Your task to perform on an android device: Clear the cart on ebay.com. Search for macbook air on ebay.com, select the first entry, add it to the cart, then select checkout. Image 0: 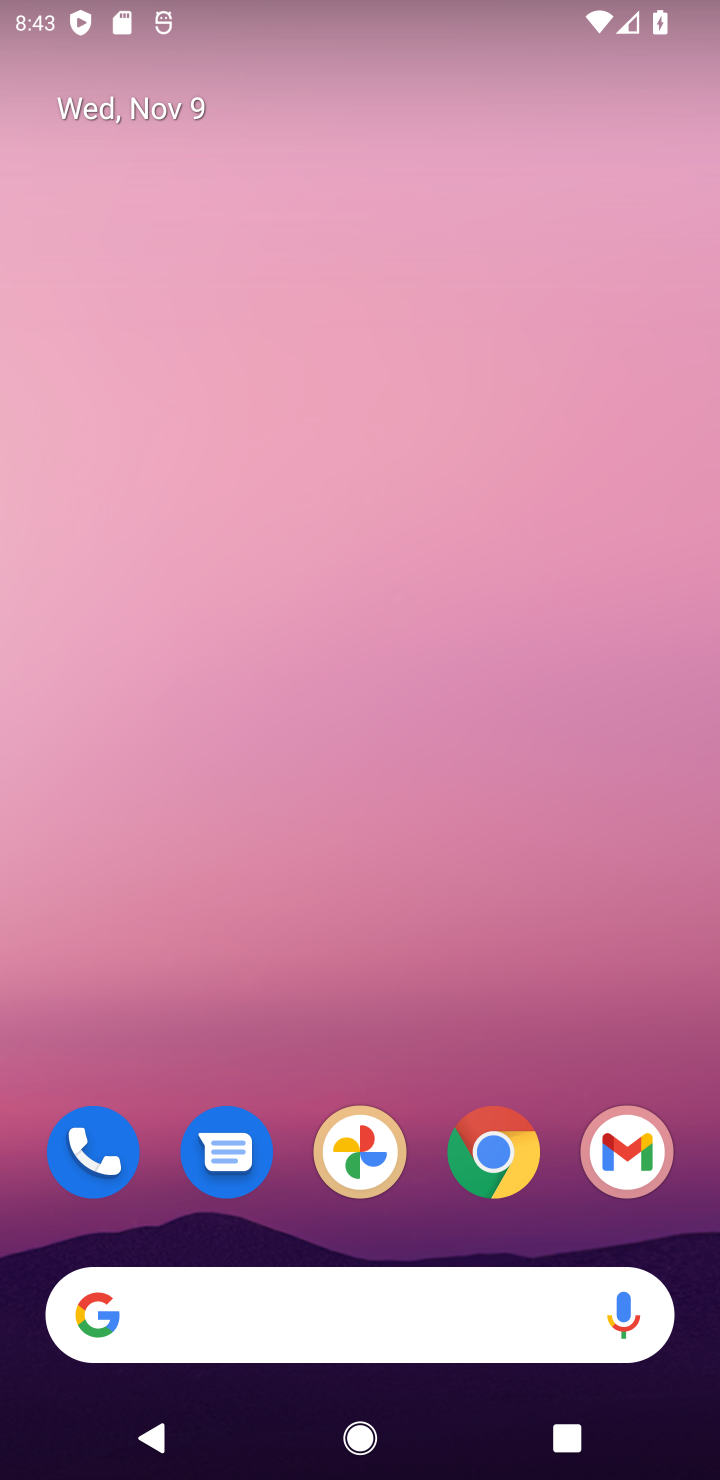
Step 0: press home button
Your task to perform on an android device: Clear the cart on ebay.com. Search for macbook air on ebay.com, select the first entry, add it to the cart, then select checkout. Image 1: 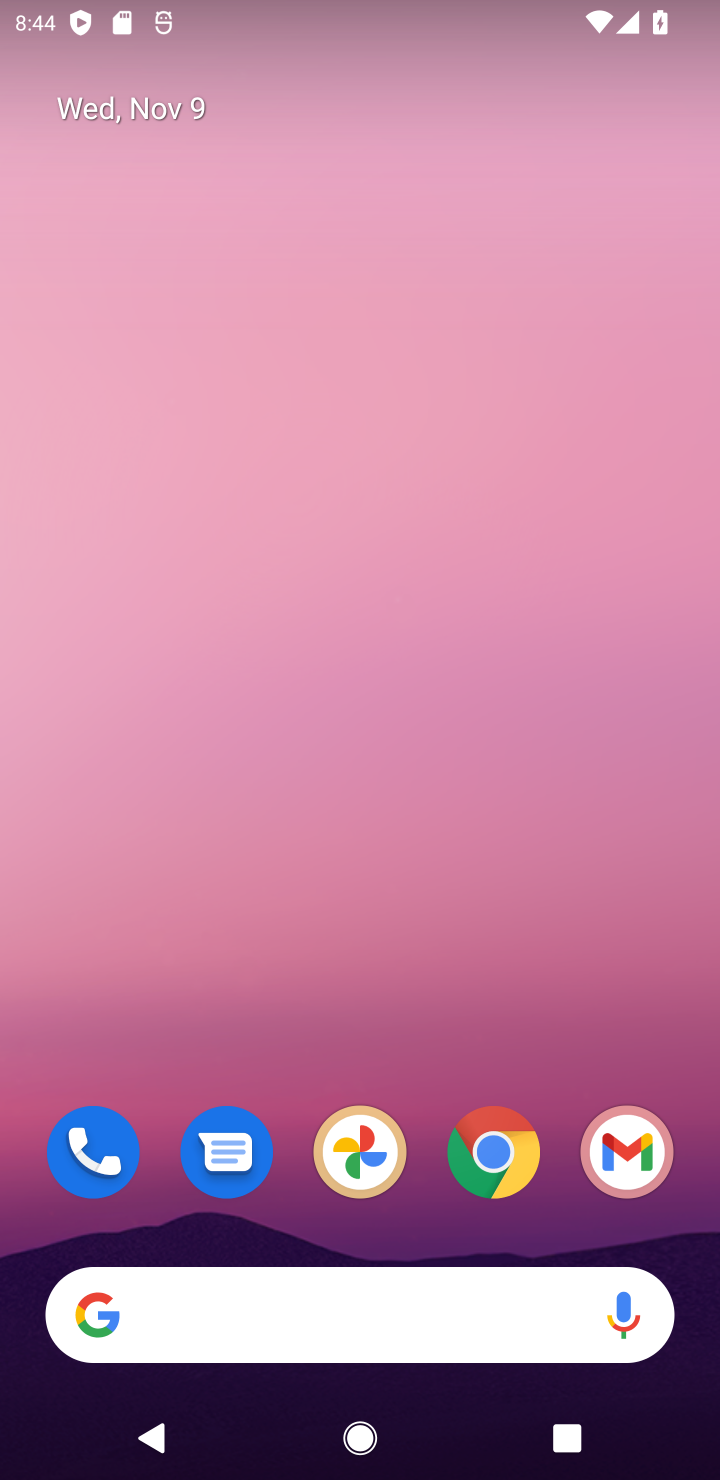
Step 1: click (485, 1157)
Your task to perform on an android device: Clear the cart on ebay.com. Search for macbook air on ebay.com, select the first entry, add it to the cart, then select checkout. Image 2: 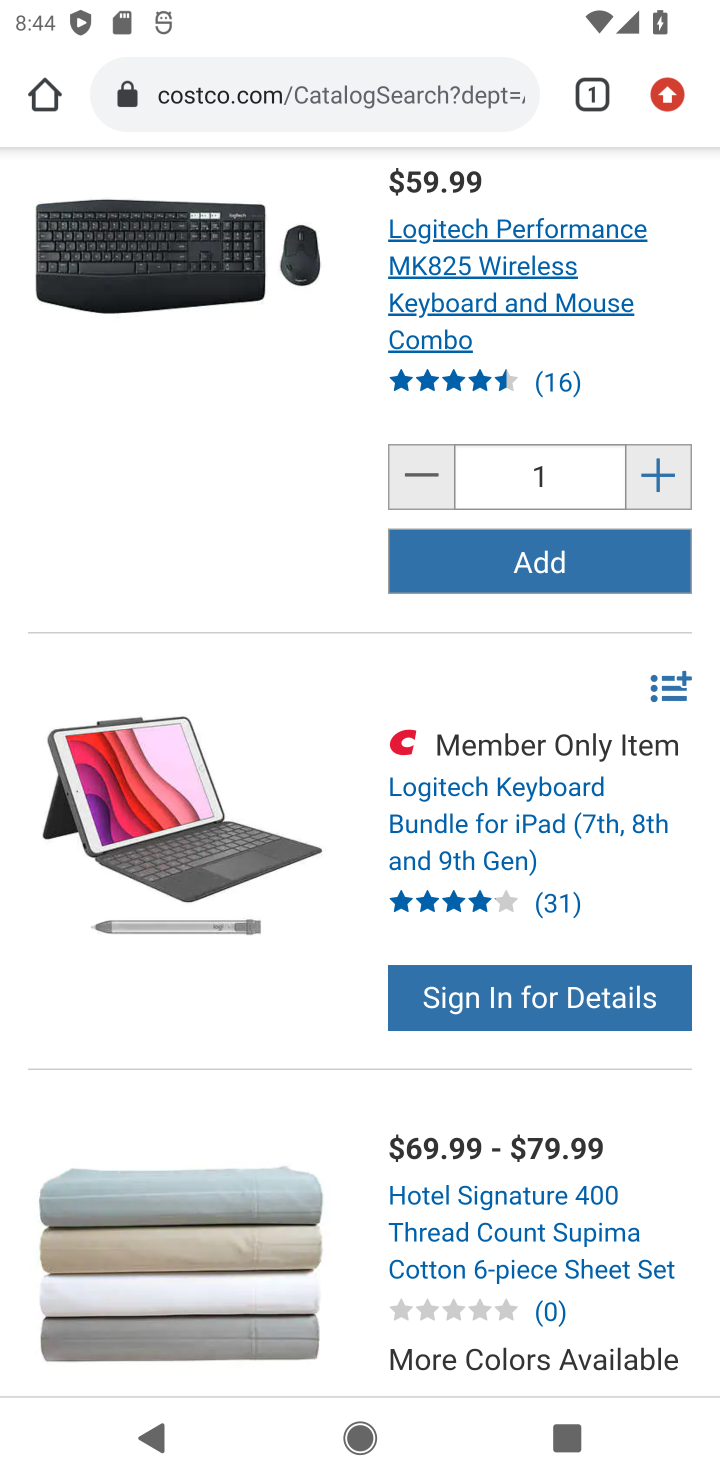
Step 2: click (428, 80)
Your task to perform on an android device: Clear the cart on ebay.com. Search for macbook air on ebay.com, select the first entry, add it to the cart, then select checkout. Image 3: 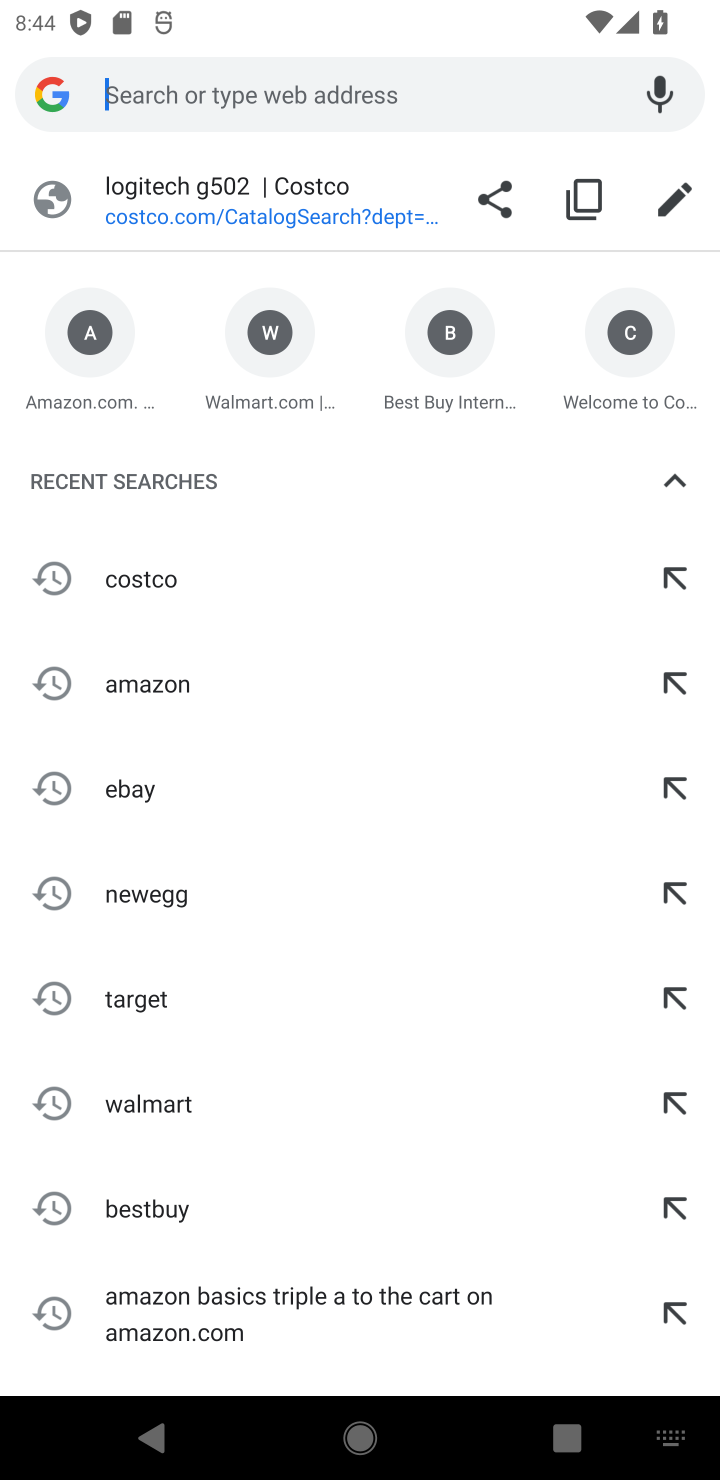
Step 3: click (117, 783)
Your task to perform on an android device: Clear the cart on ebay.com. Search for macbook air on ebay.com, select the first entry, add it to the cart, then select checkout. Image 4: 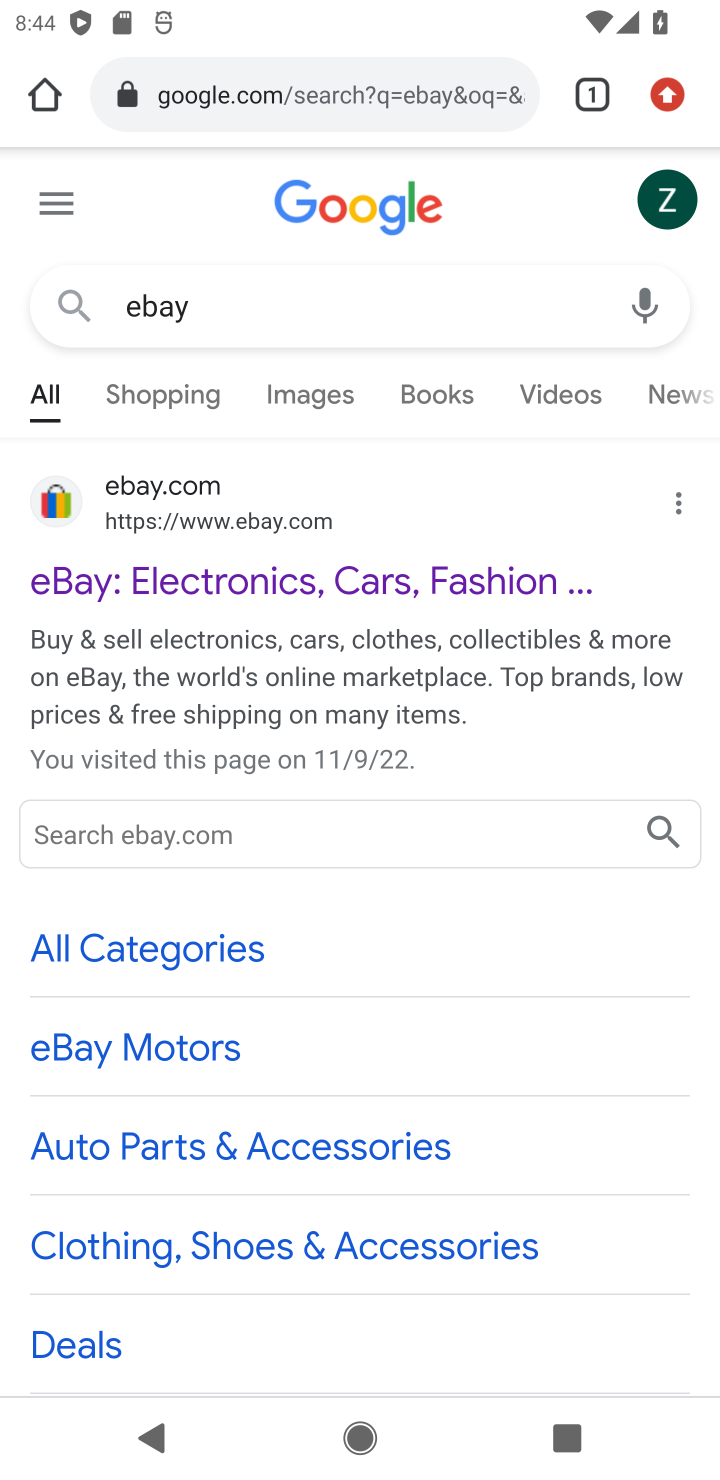
Step 4: click (330, 580)
Your task to perform on an android device: Clear the cart on ebay.com. Search for macbook air on ebay.com, select the first entry, add it to the cart, then select checkout. Image 5: 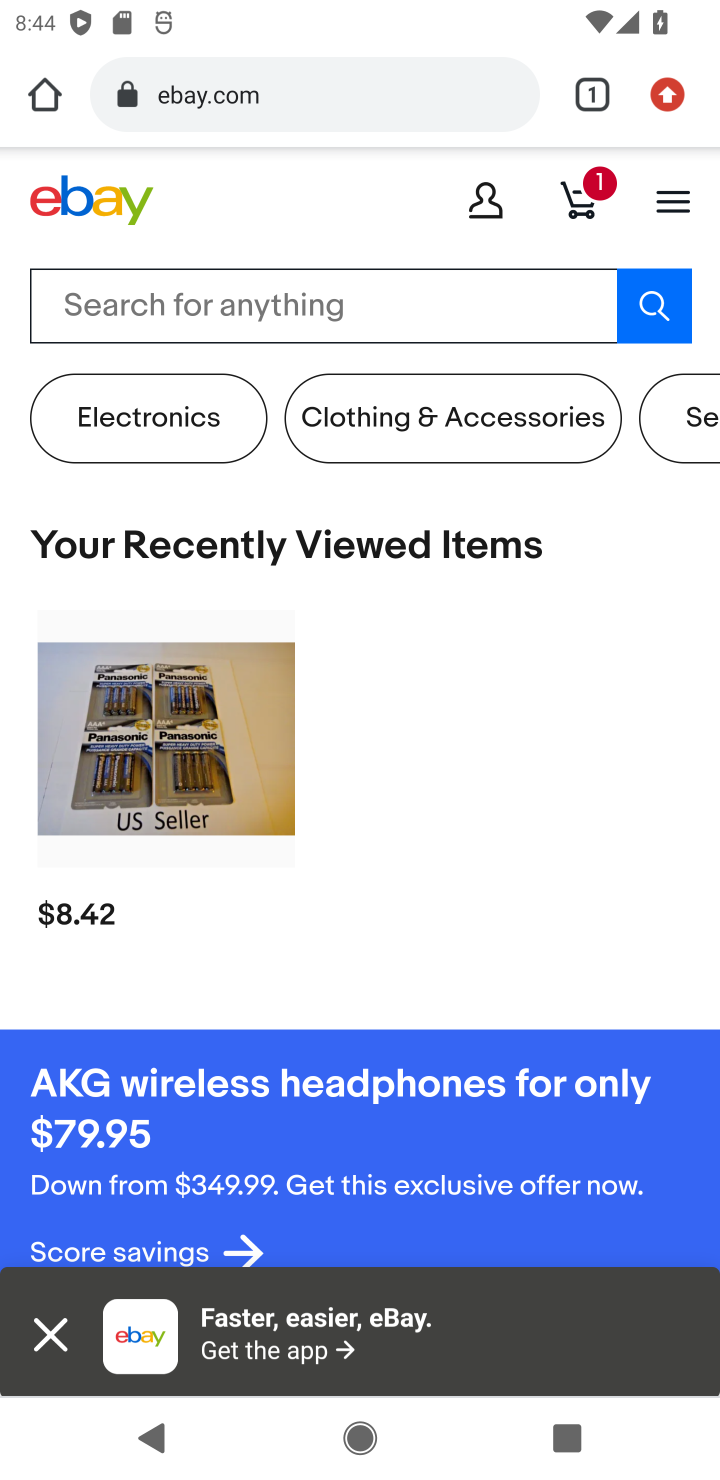
Step 5: click (272, 300)
Your task to perform on an android device: Clear the cart on ebay.com. Search for macbook air on ebay.com, select the first entry, add it to the cart, then select checkout. Image 6: 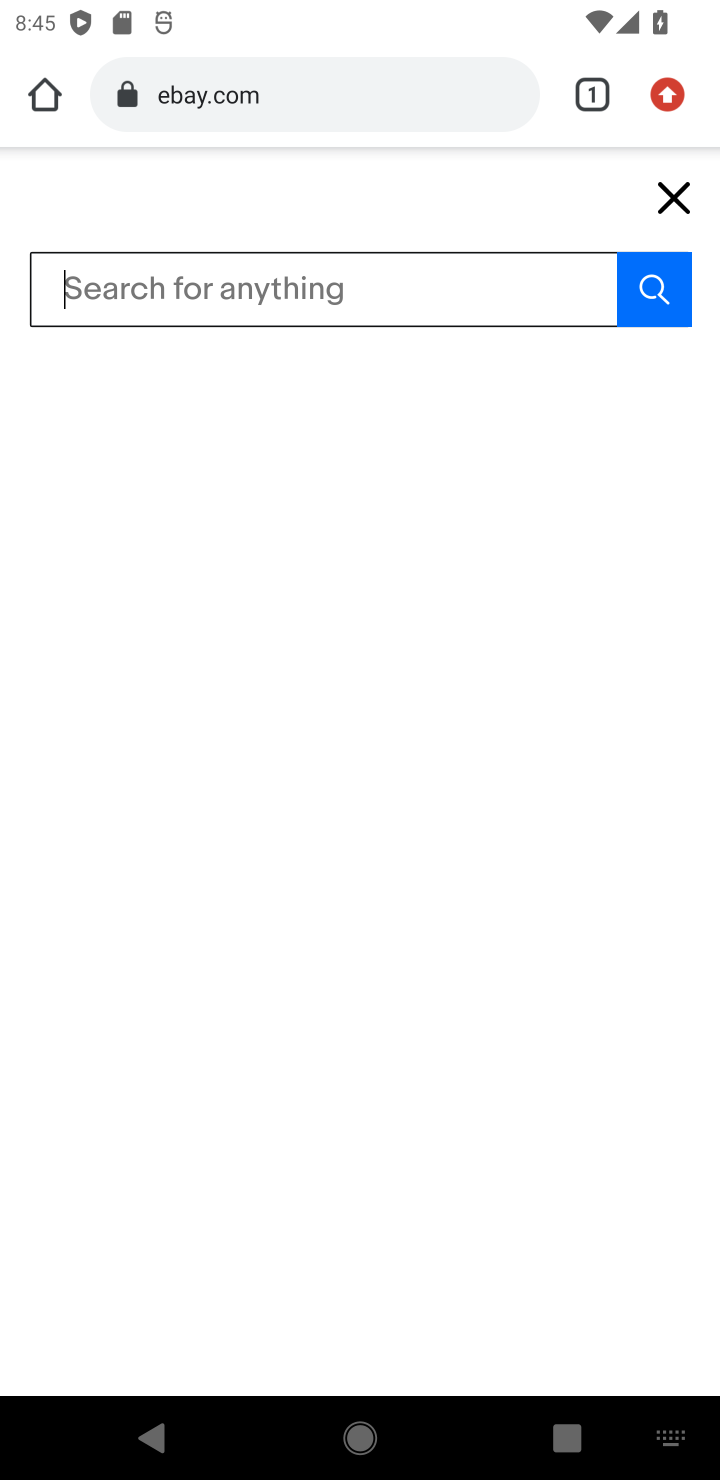
Step 6: type "macbook air"
Your task to perform on an android device: Clear the cart on ebay.com. Search for macbook air on ebay.com, select the first entry, add it to the cart, then select checkout. Image 7: 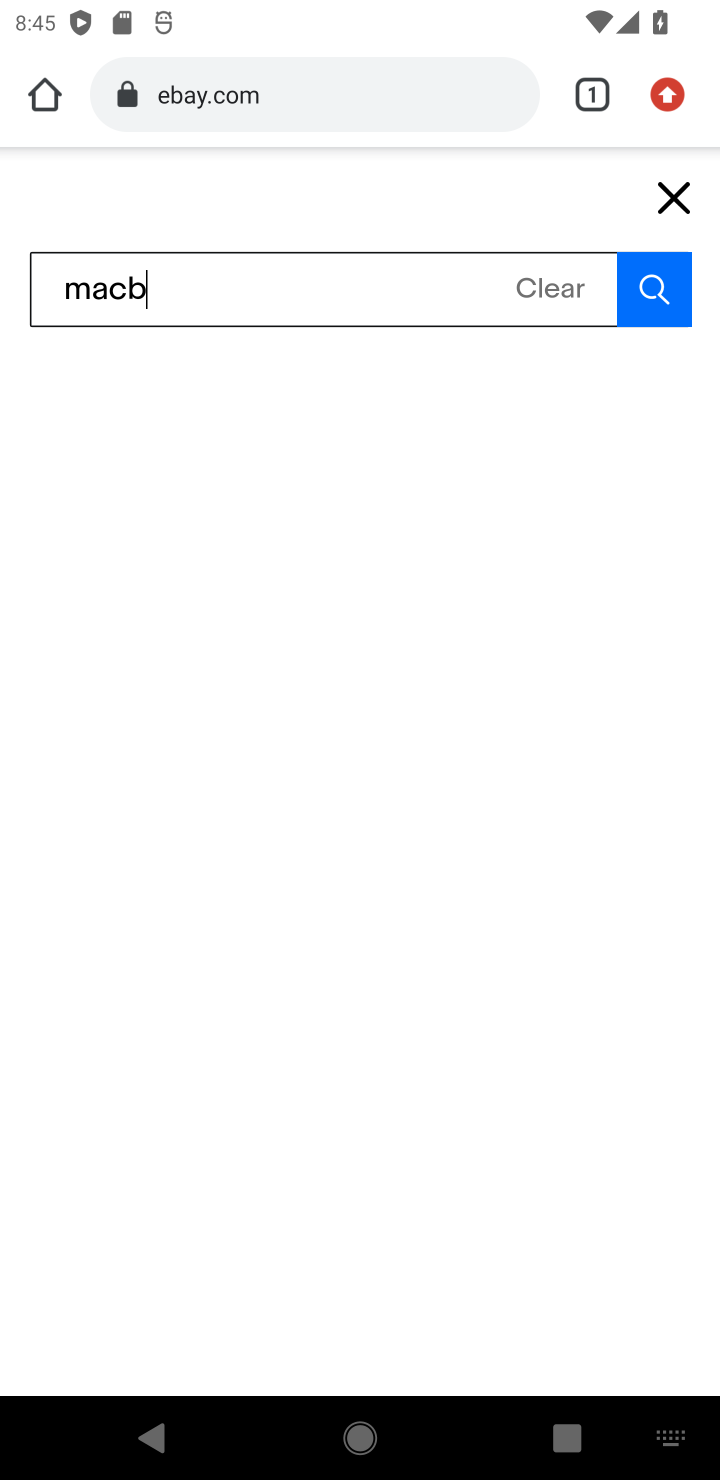
Step 7: press enter
Your task to perform on an android device: Clear the cart on ebay.com. Search for macbook air on ebay.com, select the first entry, add it to the cart, then select checkout. Image 8: 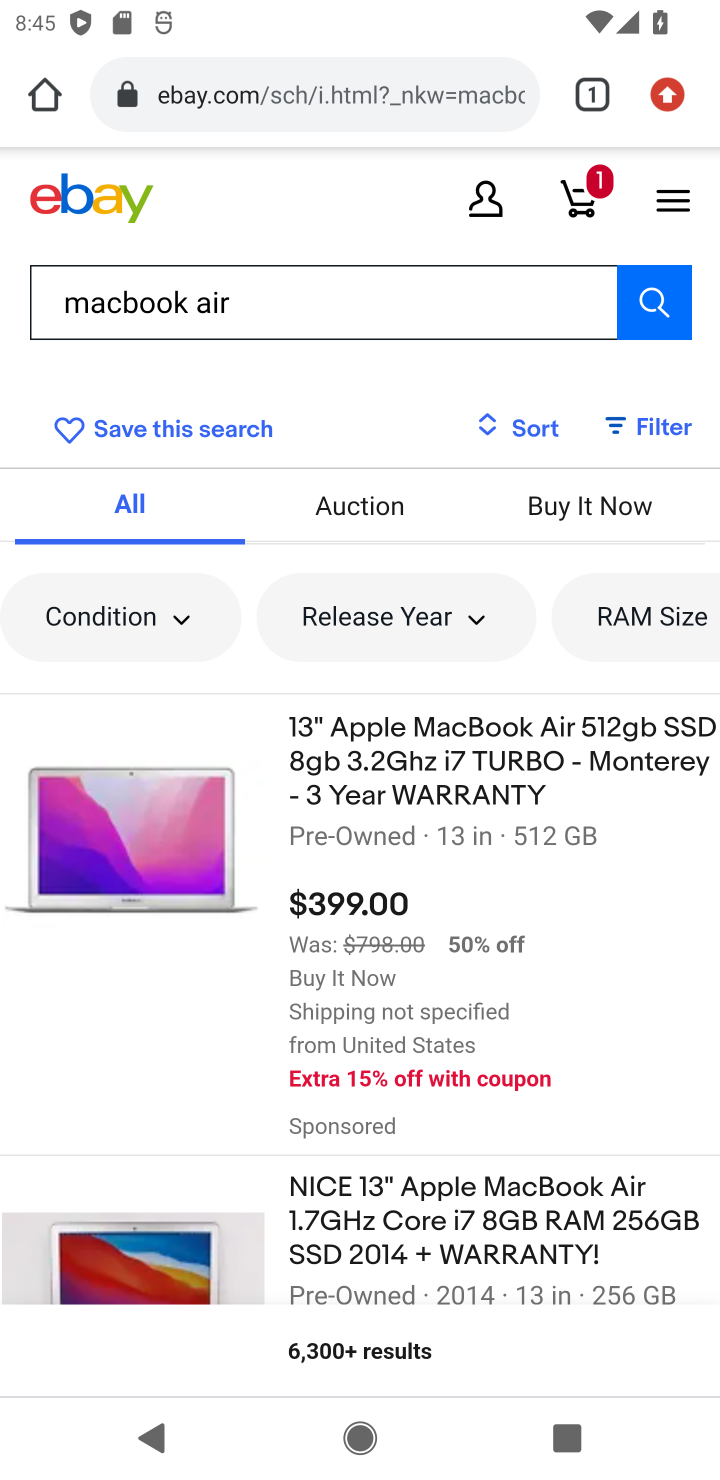
Step 8: click (466, 805)
Your task to perform on an android device: Clear the cart on ebay.com. Search for macbook air on ebay.com, select the first entry, add it to the cart, then select checkout. Image 9: 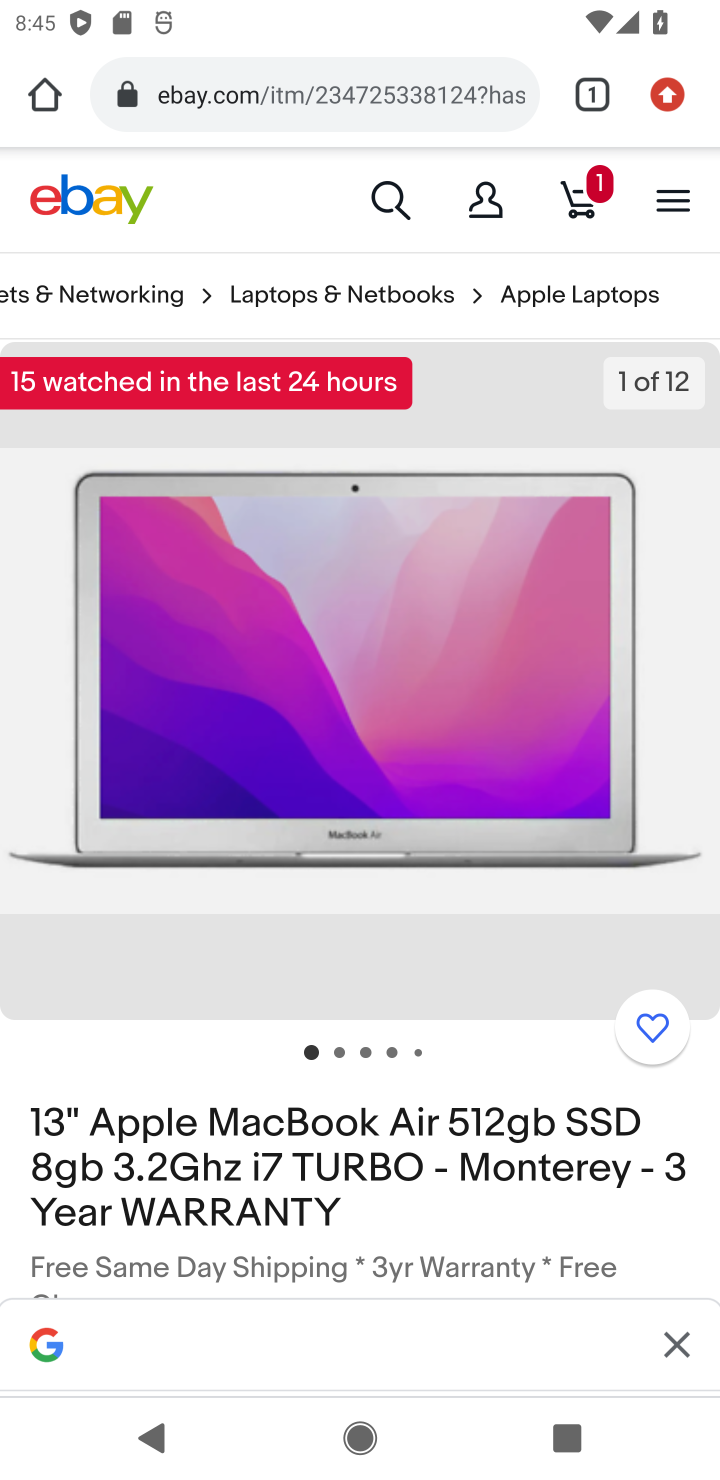
Step 9: drag from (306, 1305) to (651, 255)
Your task to perform on an android device: Clear the cart on ebay.com. Search for macbook air on ebay.com, select the first entry, add it to the cart, then select checkout. Image 10: 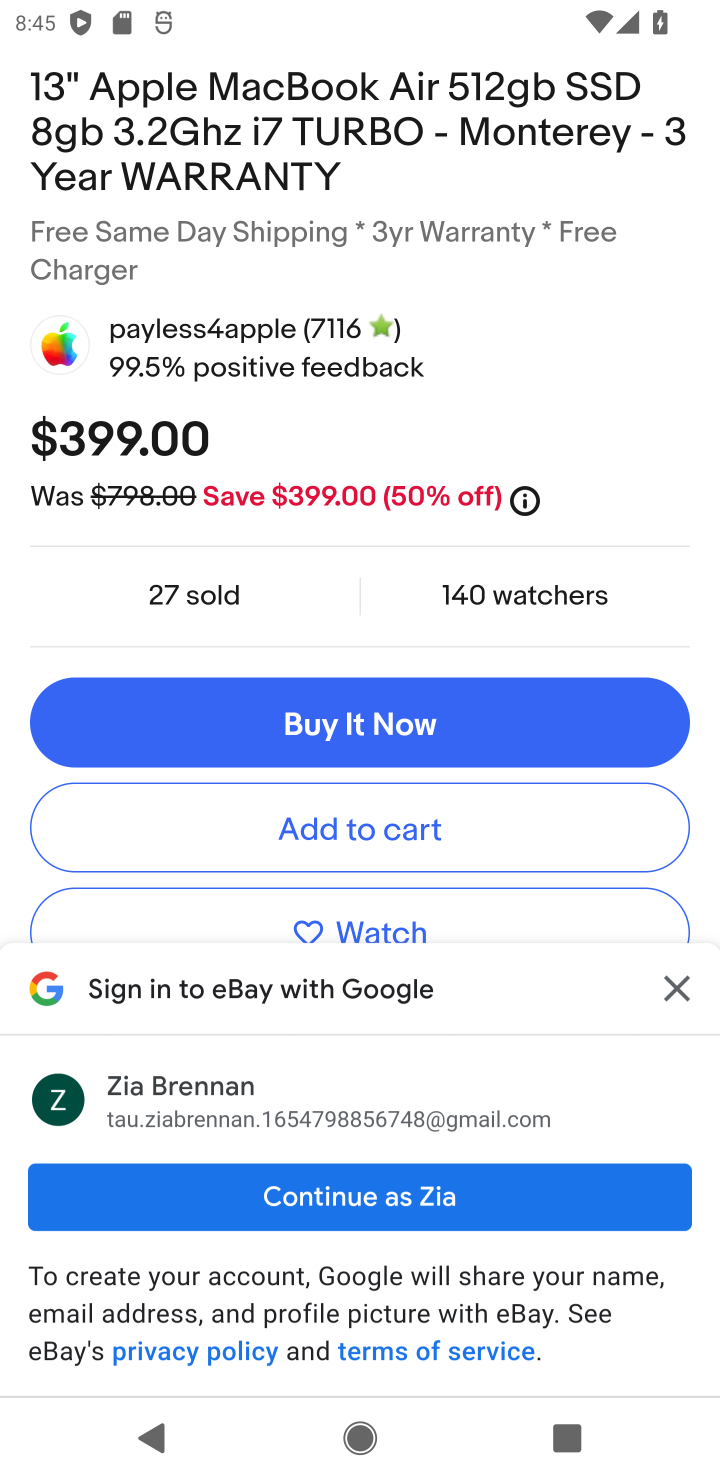
Step 10: click (400, 830)
Your task to perform on an android device: Clear the cart on ebay.com. Search for macbook air on ebay.com, select the first entry, add it to the cart, then select checkout. Image 11: 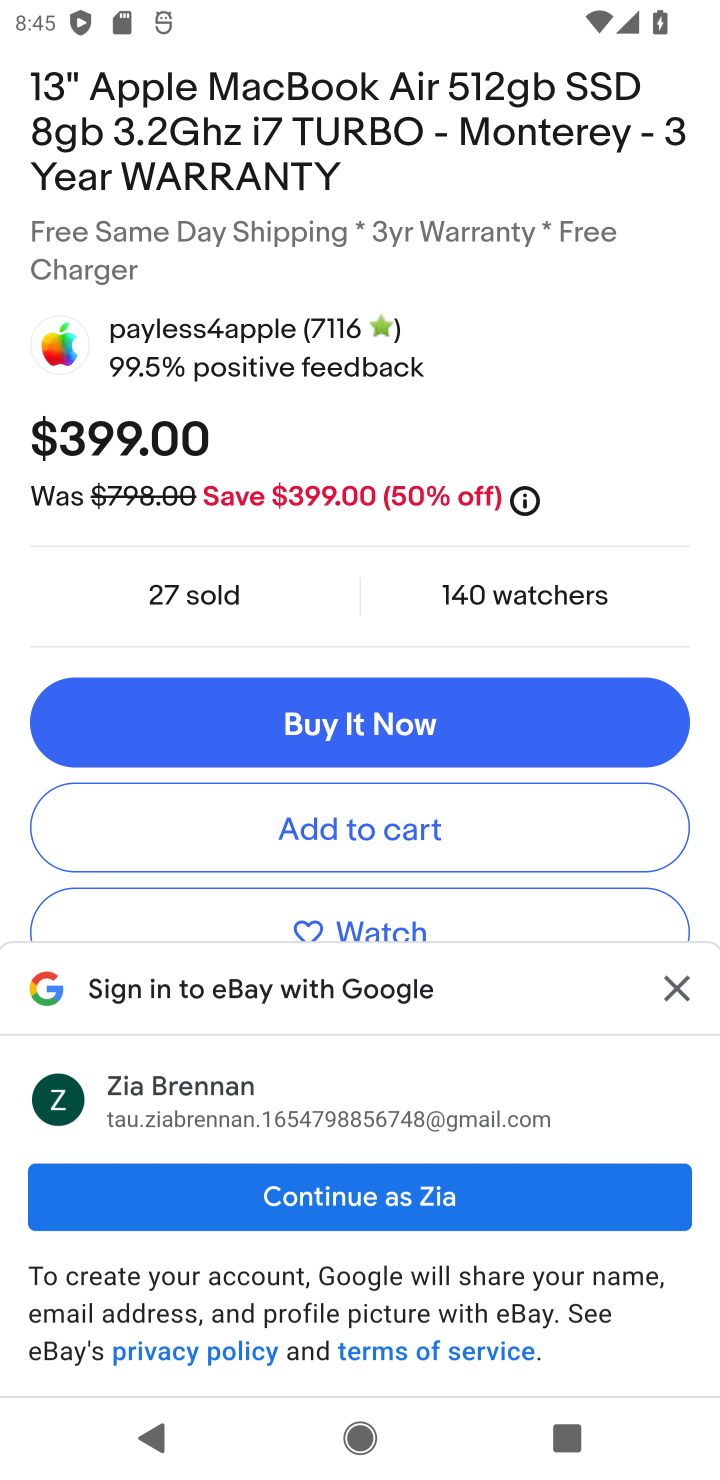
Step 11: click (337, 824)
Your task to perform on an android device: Clear the cart on ebay.com. Search for macbook air on ebay.com, select the first entry, add it to the cart, then select checkout. Image 12: 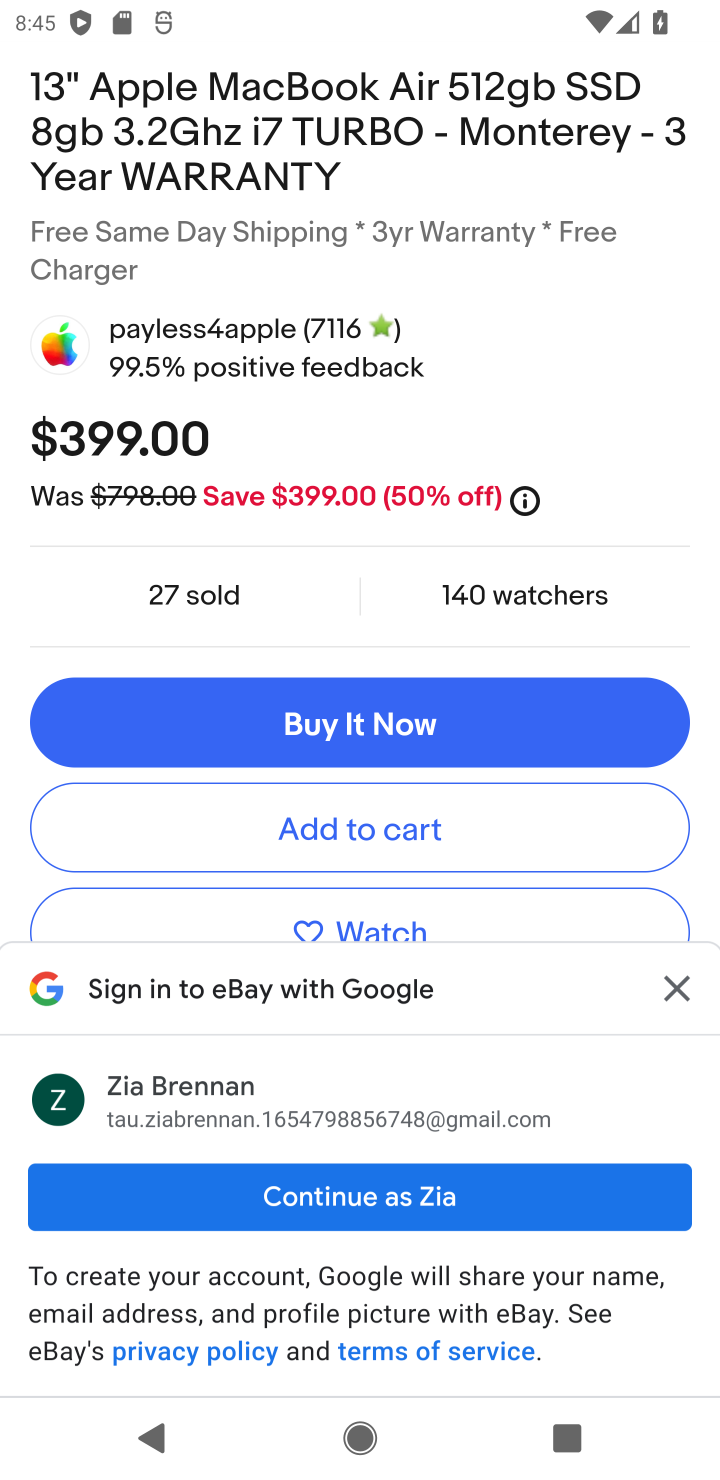
Step 12: click (311, 824)
Your task to perform on an android device: Clear the cart on ebay.com. Search for macbook air on ebay.com, select the first entry, add it to the cart, then select checkout. Image 13: 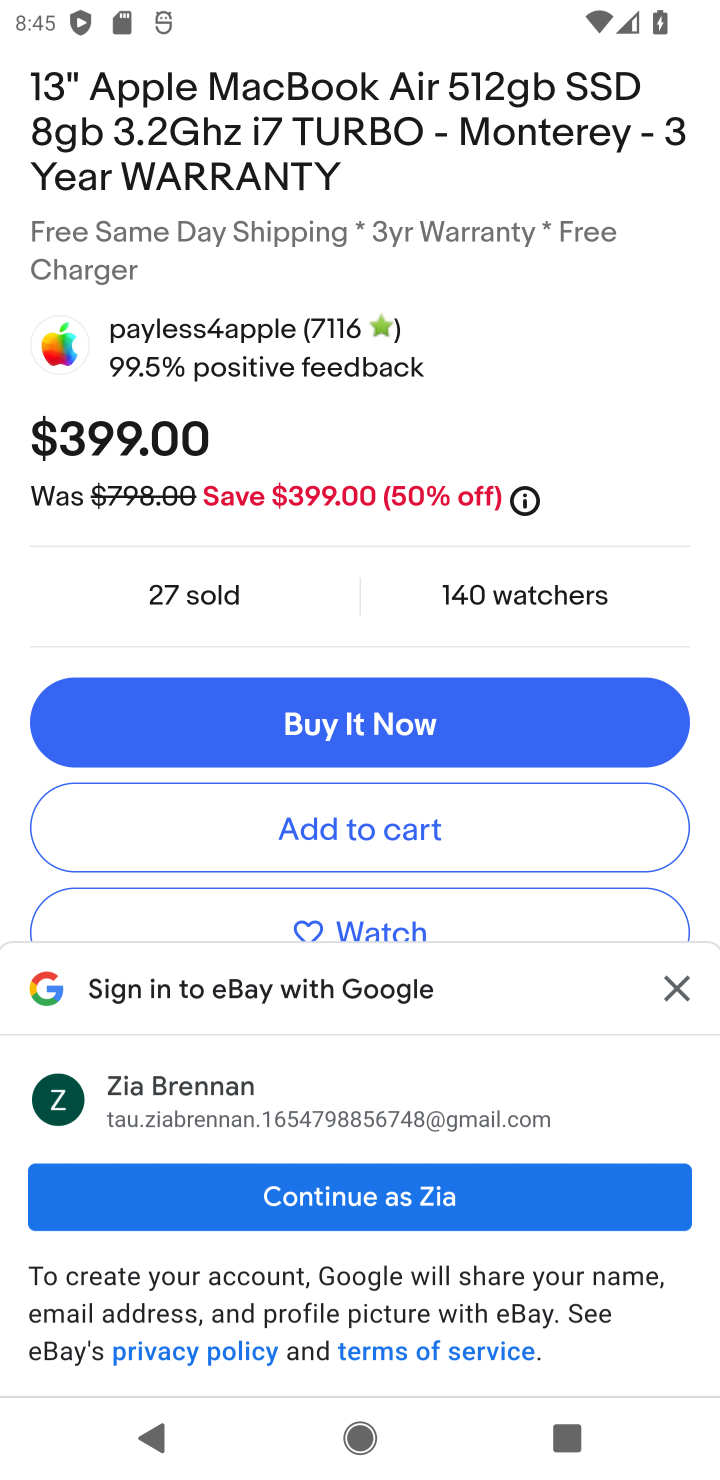
Step 13: click (355, 814)
Your task to perform on an android device: Clear the cart on ebay.com. Search for macbook air on ebay.com, select the first entry, add it to the cart, then select checkout. Image 14: 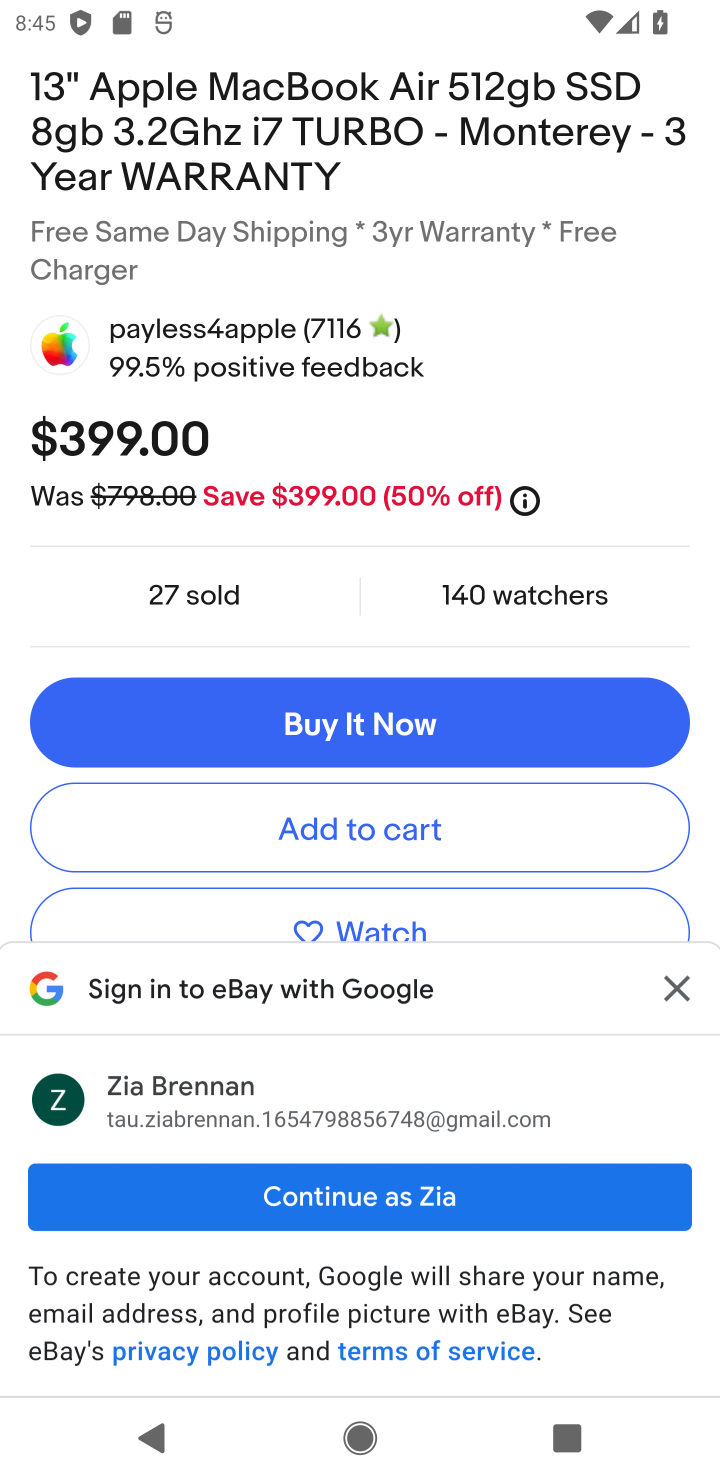
Step 14: click (675, 979)
Your task to perform on an android device: Clear the cart on ebay.com. Search for macbook air on ebay.com, select the first entry, add it to the cart, then select checkout. Image 15: 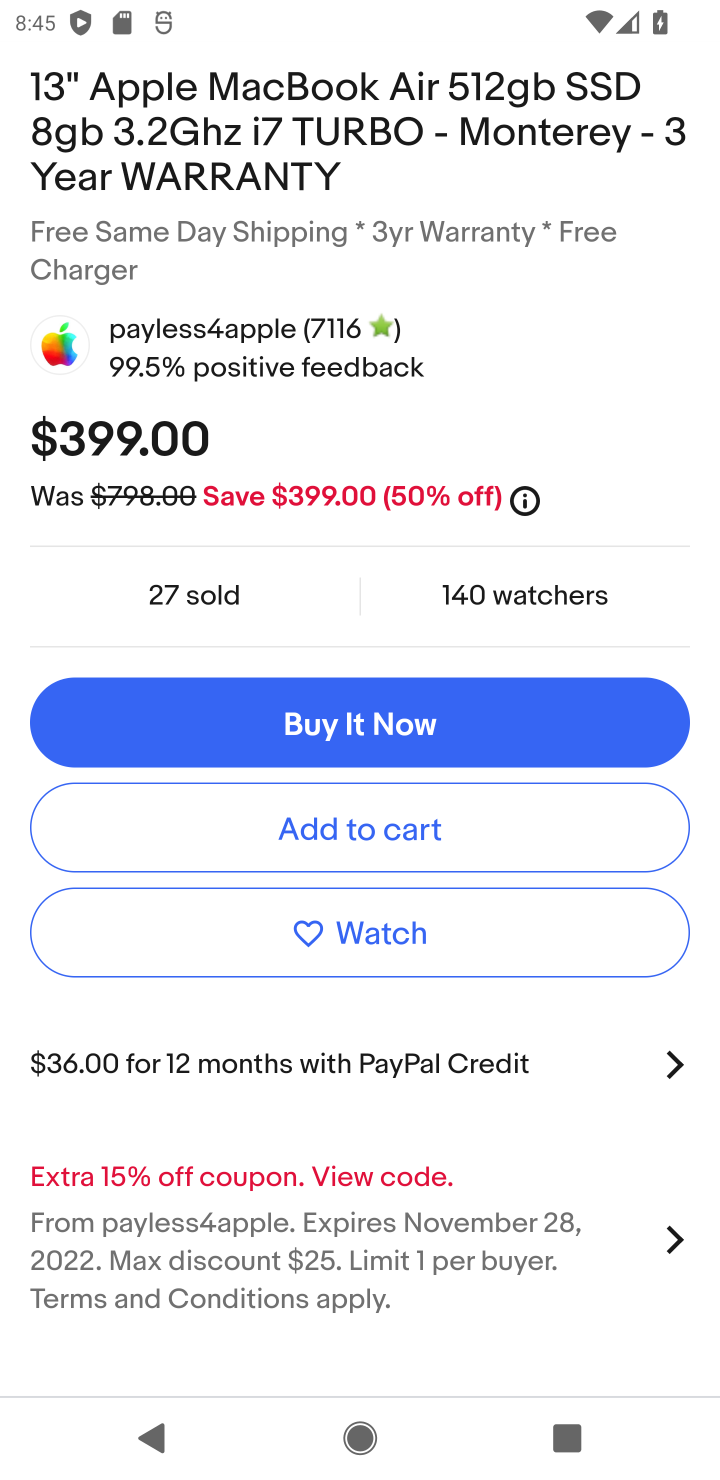
Step 15: click (389, 819)
Your task to perform on an android device: Clear the cart on ebay.com. Search for macbook air on ebay.com, select the first entry, add it to the cart, then select checkout. Image 16: 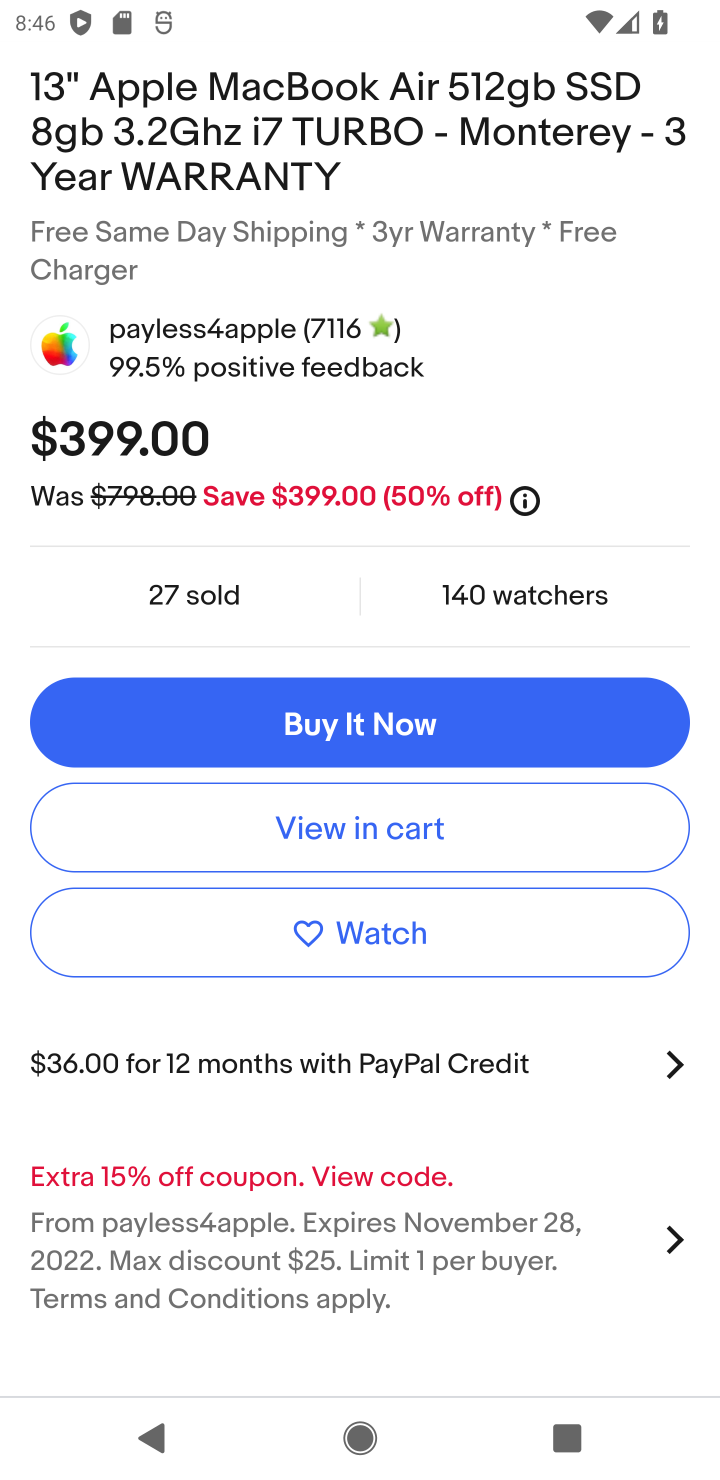
Step 16: click (389, 819)
Your task to perform on an android device: Clear the cart on ebay.com. Search for macbook air on ebay.com, select the first entry, add it to the cart, then select checkout. Image 17: 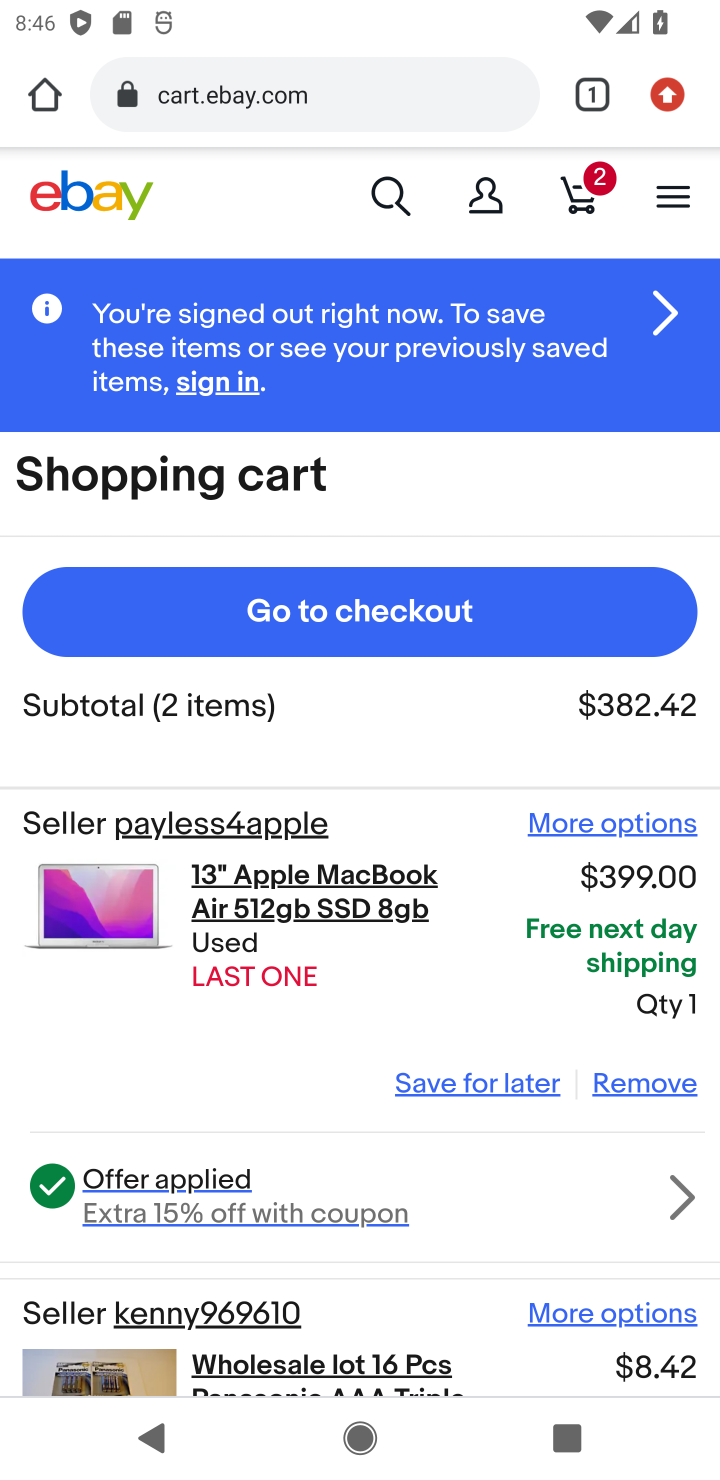
Step 17: drag from (297, 1113) to (501, 578)
Your task to perform on an android device: Clear the cart on ebay.com. Search for macbook air on ebay.com, select the first entry, add it to the cart, then select checkout. Image 18: 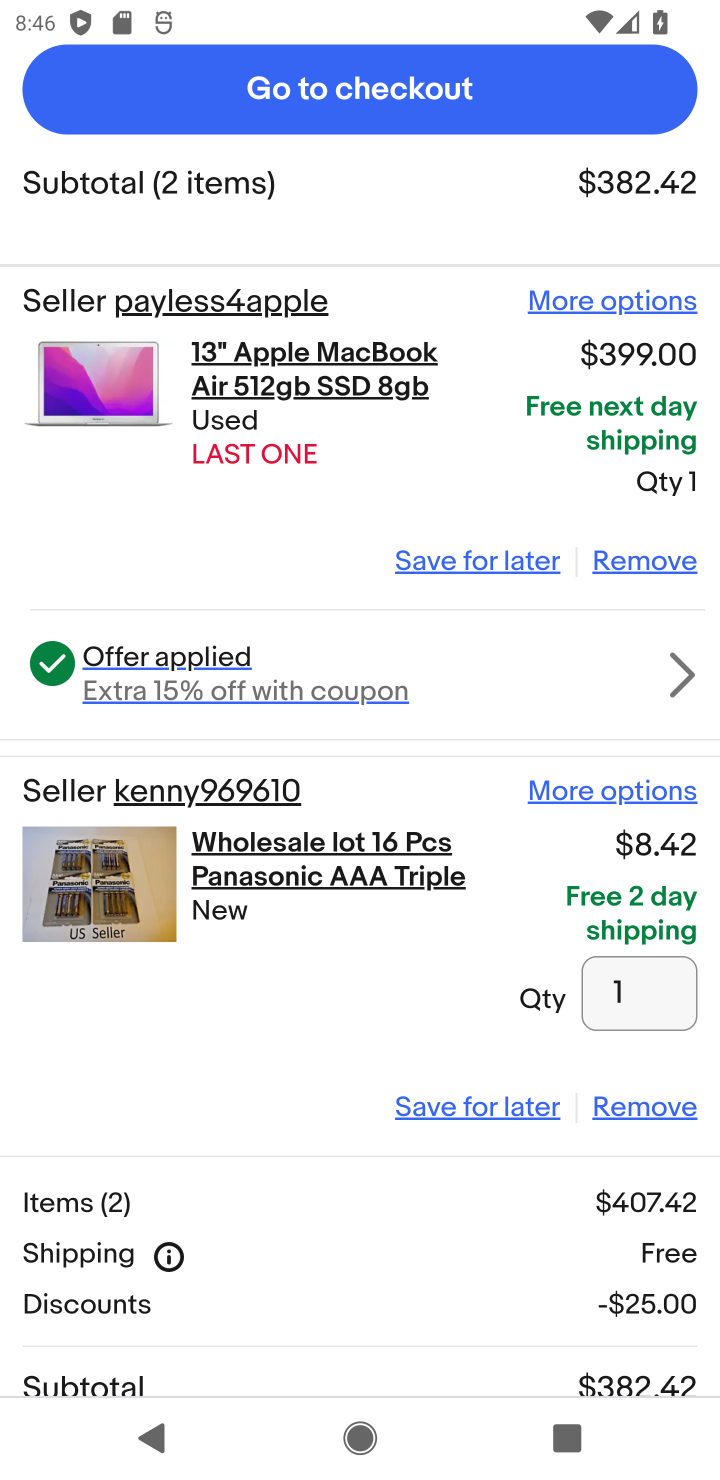
Step 18: click (614, 1105)
Your task to perform on an android device: Clear the cart on ebay.com. Search for macbook air on ebay.com, select the first entry, add it to the cart, then select checkout. Image 19: 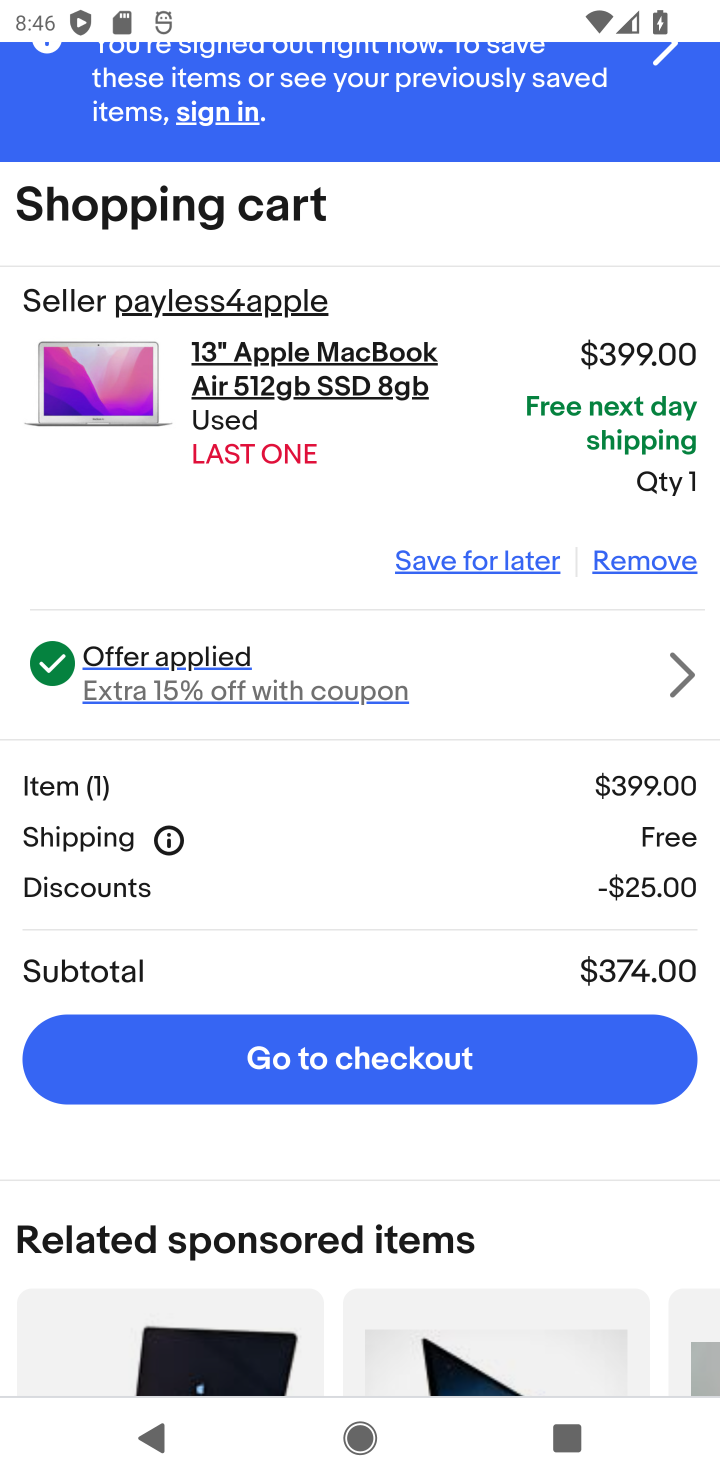
Step 19: click (354, 1050)
Your task to perform on an android device: Clear the cart on ebay.com. Search for macbook air on ebay.com, select the first entry, add it to the cart, then select checkout. Image 20: 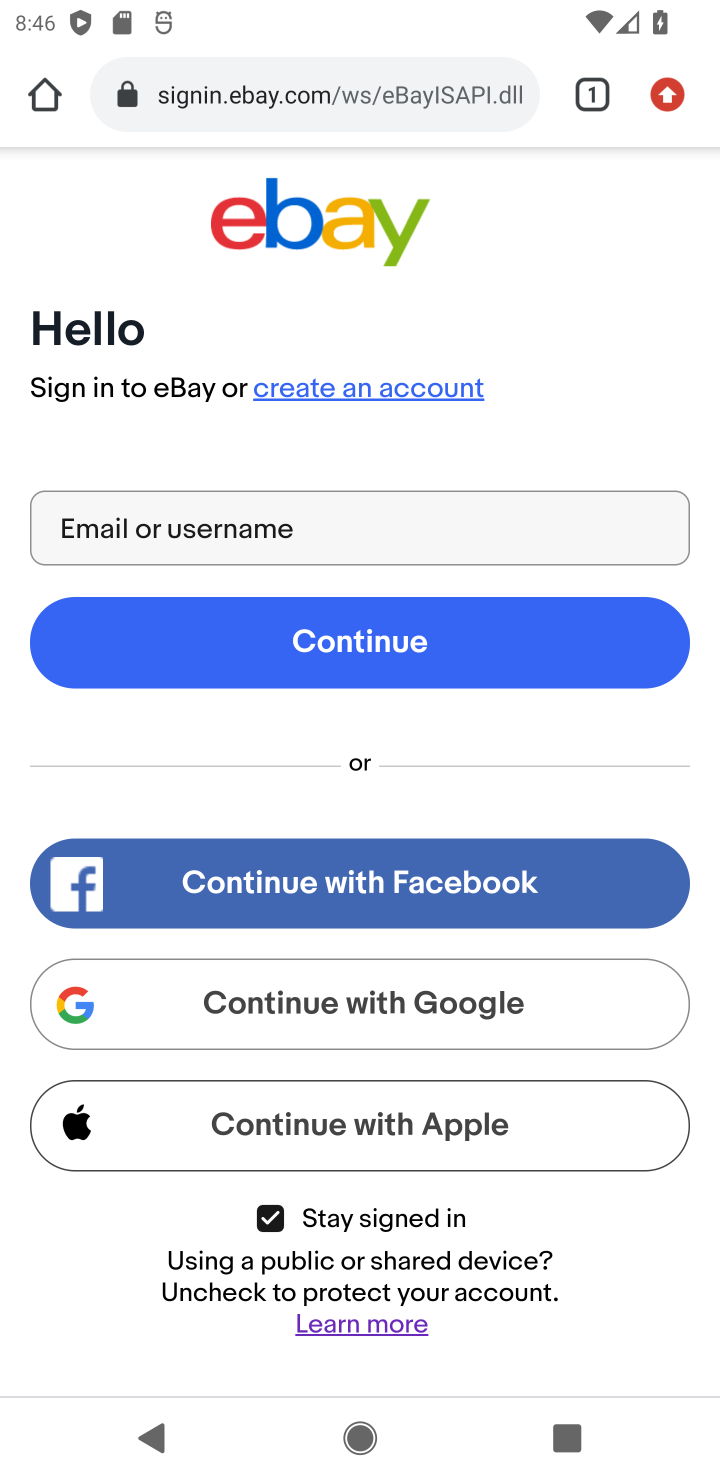
Step 20: task complete